Your task to perform on an android device: move an email to a new category in the gmail app Image 0: 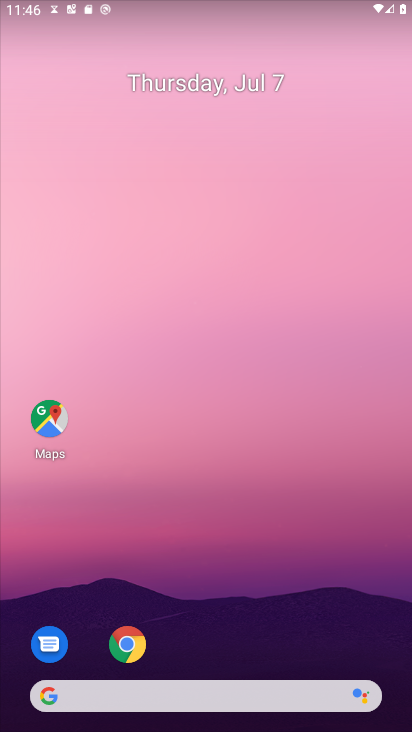
Step 0: press home button
Your task to perform on an android device: move an email to a new category in the gmail app Image 1: 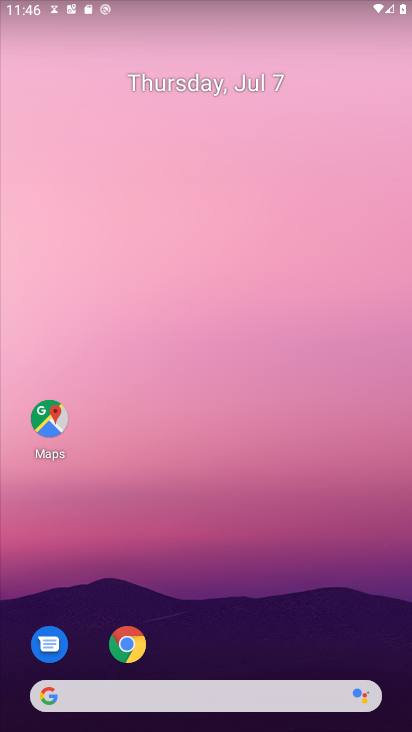
Step 1: drag from (300, 625) to (299, 179)
Your task to perform on an android device: move an email to a new category in the gmail app Image 2: 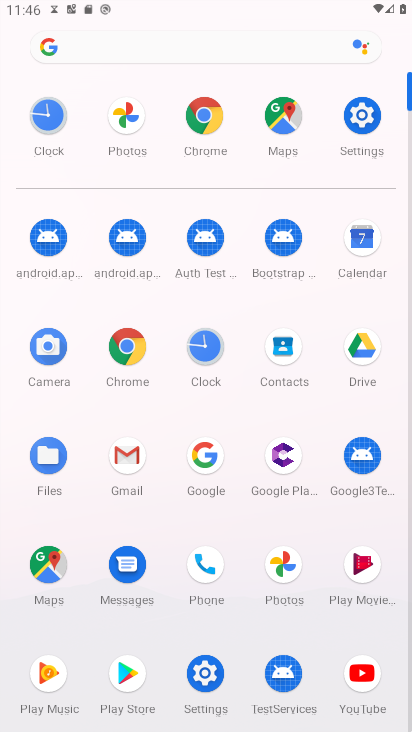
Step 2: drag from (239, 628) to (261, 376)
Your task to perform on an android device: move an email to a new category in the gmail app Image 3: 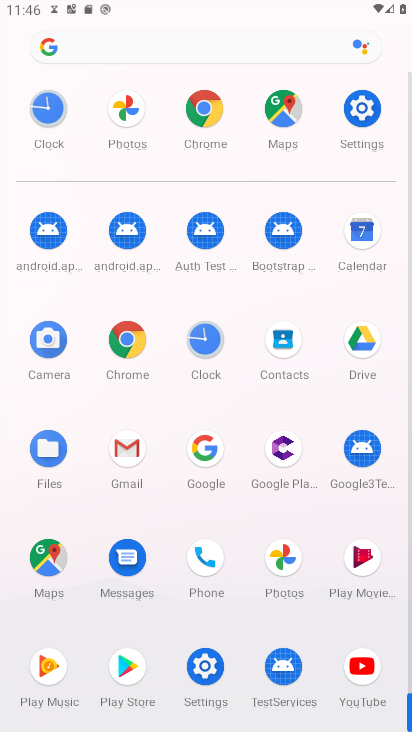
Step 3: click (138, 423)
Your task to perform on an android device: move an email to a new category in the gmail app Image 4: 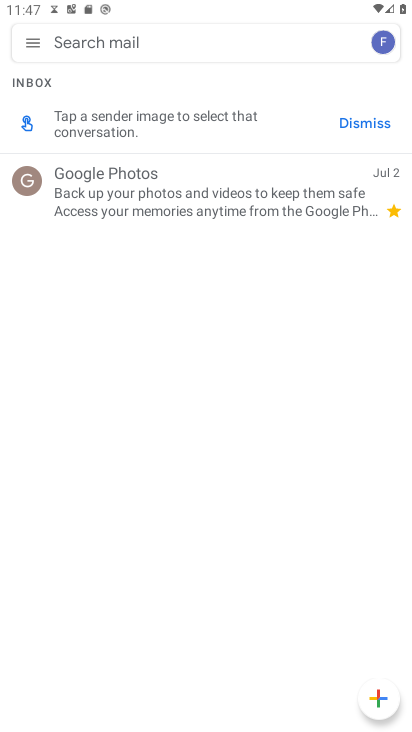
Step 4: click (224, 215)
Your task to perform on an android device: move an email to a new category in the gmail app Image 5: 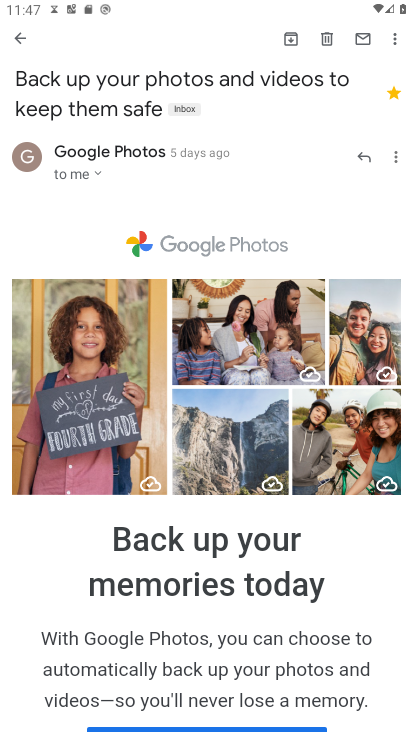
Step 5: click (390, 152)
Your task to perform on an android device: move an email to a new category in the gmail app Image 6: 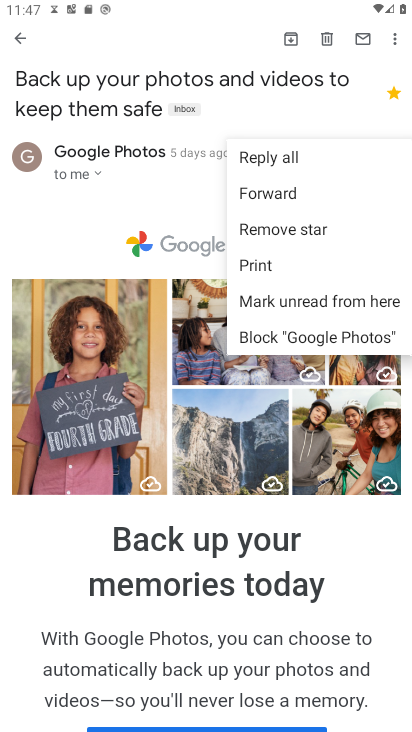
Step 6: drag from (342, 275) to (334, 93)
Your task to perform on an android device: move an email to a new category in the gmail app Image 7: 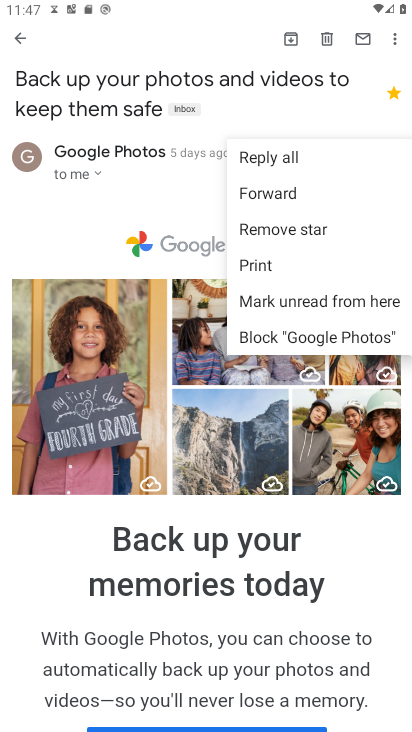
Step 7: click (369, 93)
Your task to perform on an android device: move an email to a new category in the gmail app Image 8: 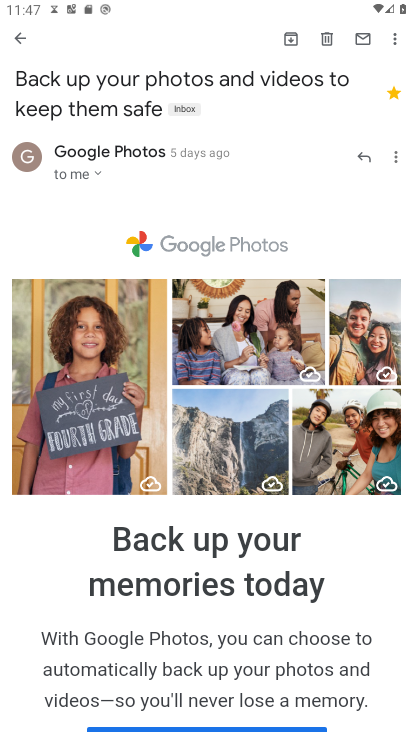
Step 8: click (396, 50)
Your task to perform on an android device: move an email to a new category in the gmail app Image 9: 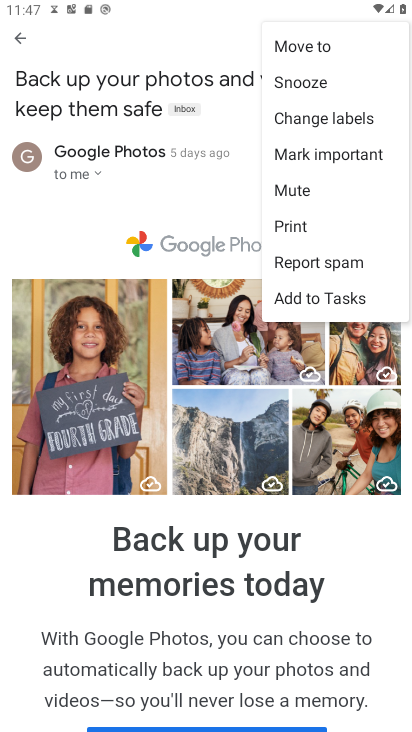
Step 9: click (300, 50)
Your task to perform on an android device: move an email to a new category in the gmail app Image 10: 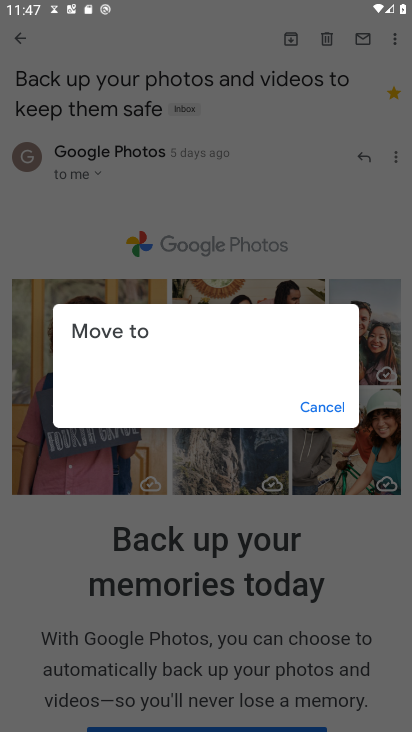
Step 10: drag from (318, 406) to (234, 400)
Your task to perform on an android device: move an email to a new category in the gmail app Image 11: 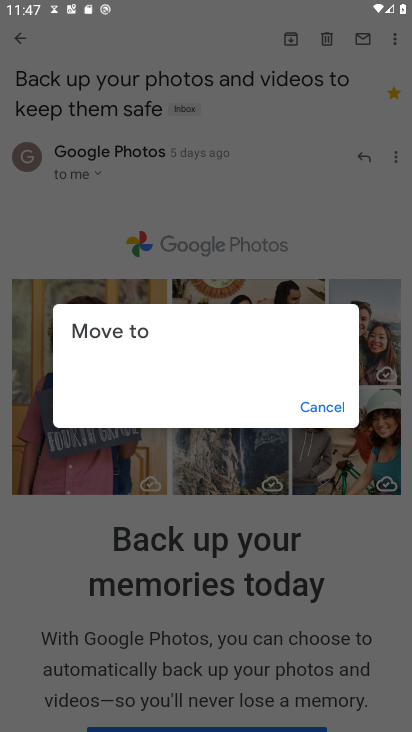
Step 11: click (319, 403)
Your task to perform on an android device: move an email to a new category in the gmail app Image 12: 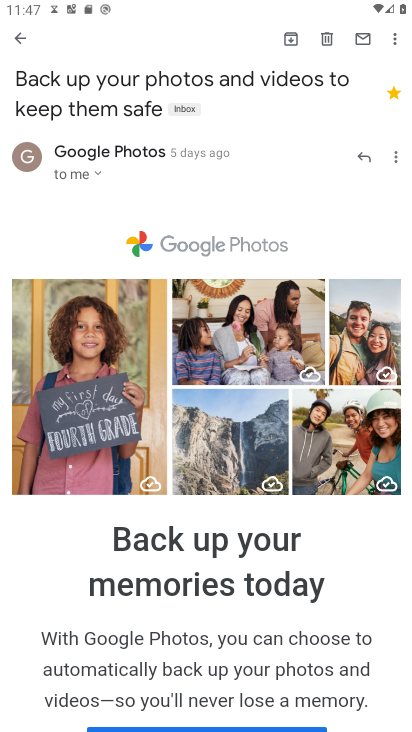
Step 12: click (400, 38)
Your task to perform on an android device: move an email to a new category in the gmail app Image 13: 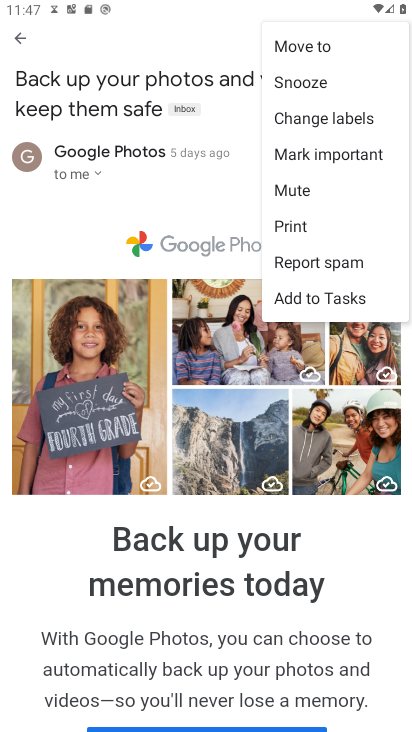
Step 13: click (329, 57)
Your task to perform on an android device: move an email to a new category in the gmail app Image 14: 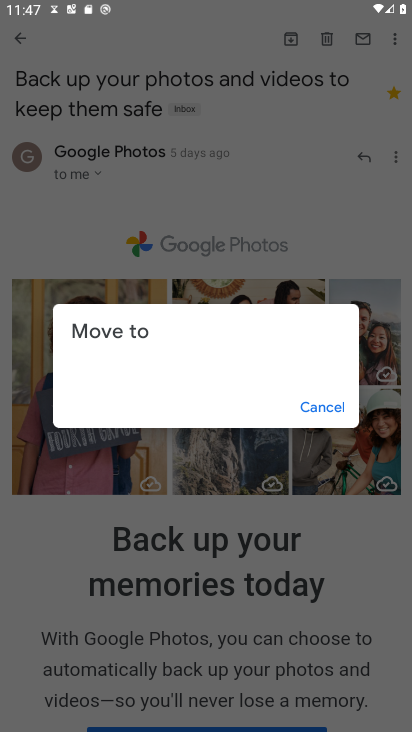
Step 14: task complete